Your task to perform on an android device: turn off airplane mode Image 0: 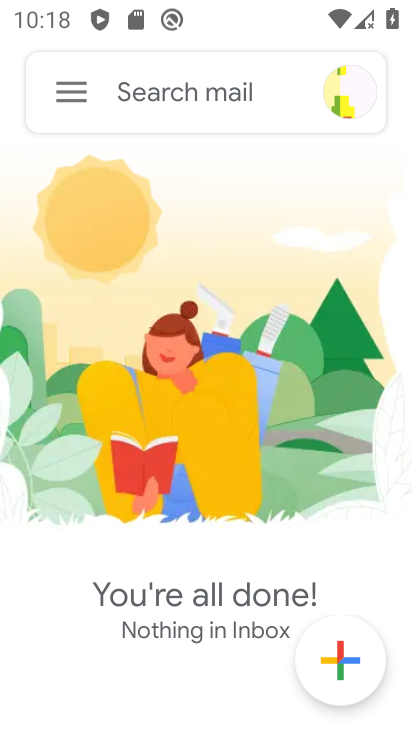
Step 0: press home button
Your task to perform on an android device: turn off airplane mode Image 1: 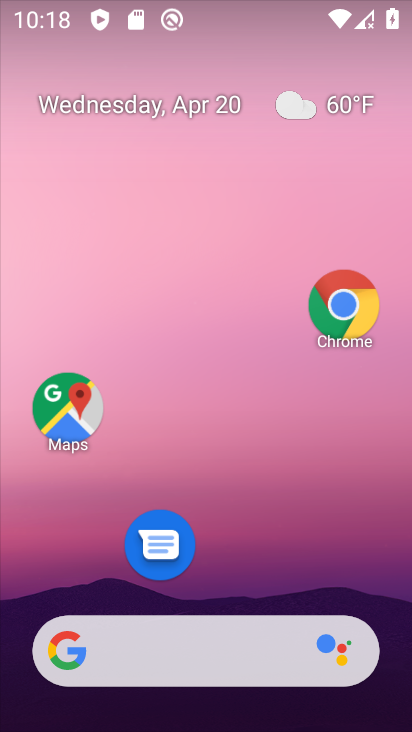
Step 1: drag from (280, 410) to (280, 163)
Your task to perform on an android device: turn off airplane mode Image 2: 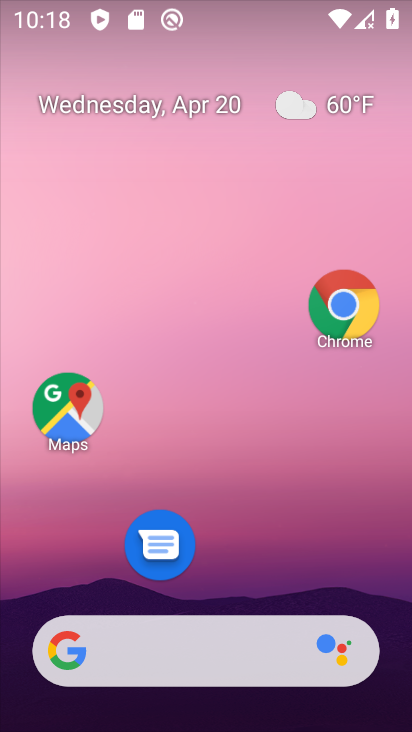
Step 2: drag from (224, 479) to (206, 31)
Your task to perform on an android device: turn off airplane mode Image 3: 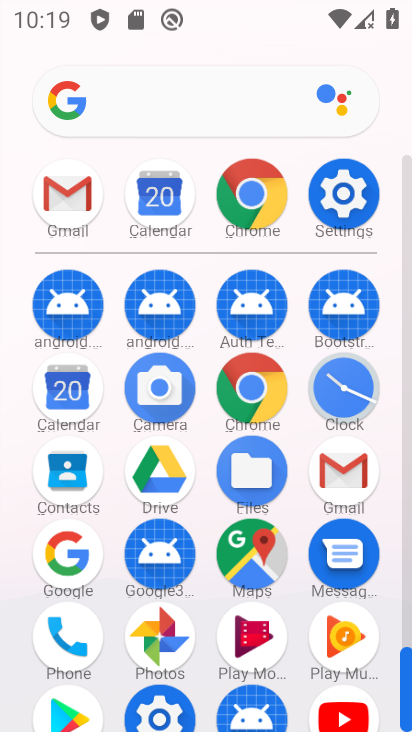
Step 3: click (363, 205)
Your task to perform on an android device: turn off airplane mode Image 4: 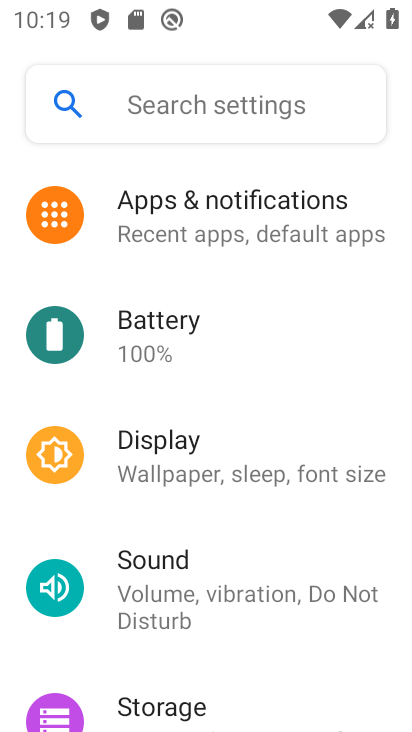
Step 4: drag from (269, 217) to (281, 644)
Your task to perform on an android device: turn off airplane mode Image 5: 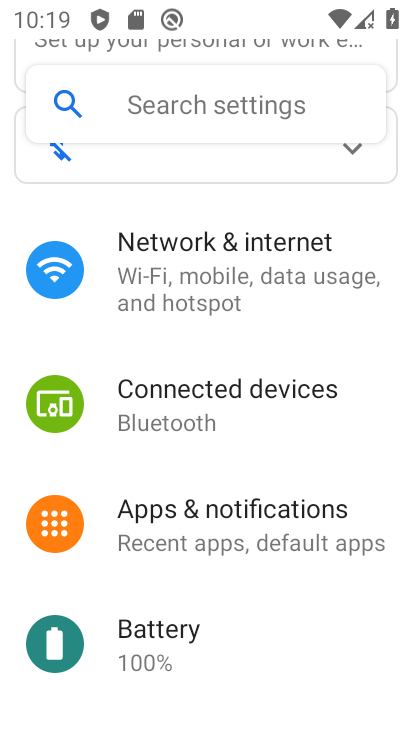
Step 5: click (250, 283)
Your task to perform on an android device: turn off airplane mode Image 6: 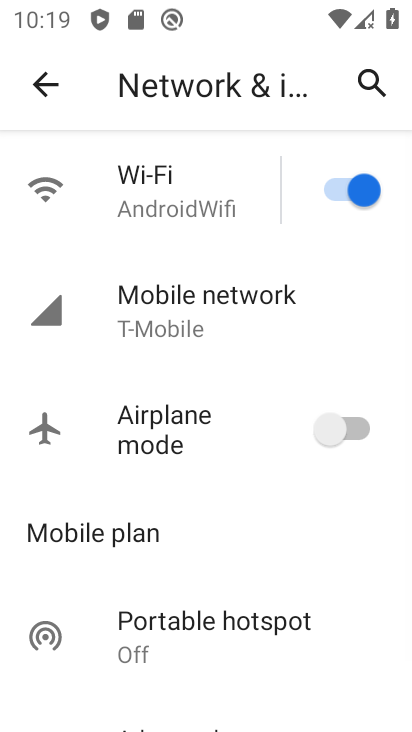
Step 6: task complete